Your task to perform on an android device: Search for Italian restaurants on Maps Image 0: 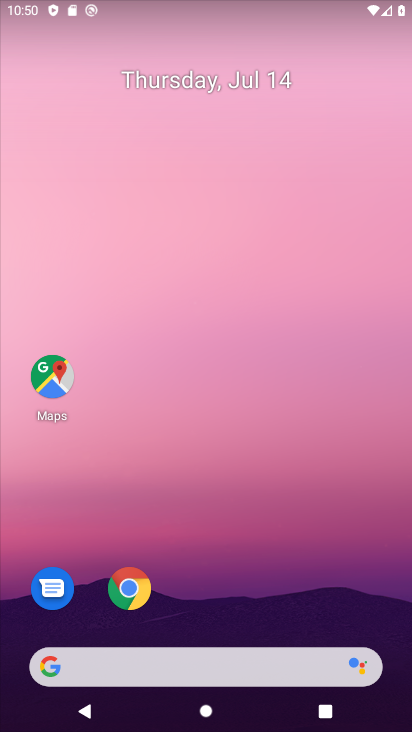
Step 0: click (52, 380)
Your task to perform on an android device: Search for Italian restaurants on Maps Image 1: 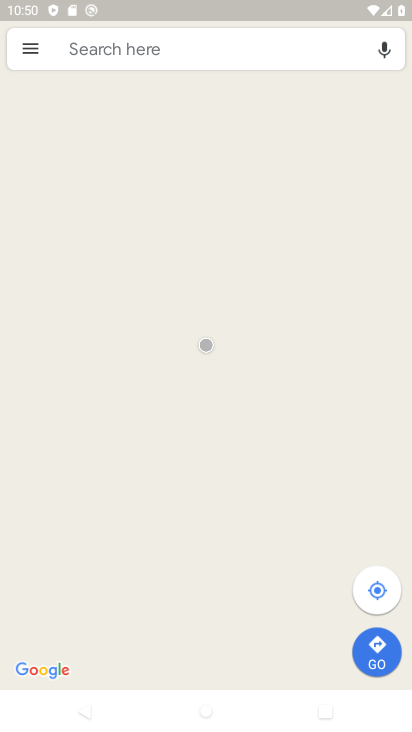
Step 1: click (198, 58)
Your task to perform on an android device: Search for Italian restaurants on Maps Image 2: 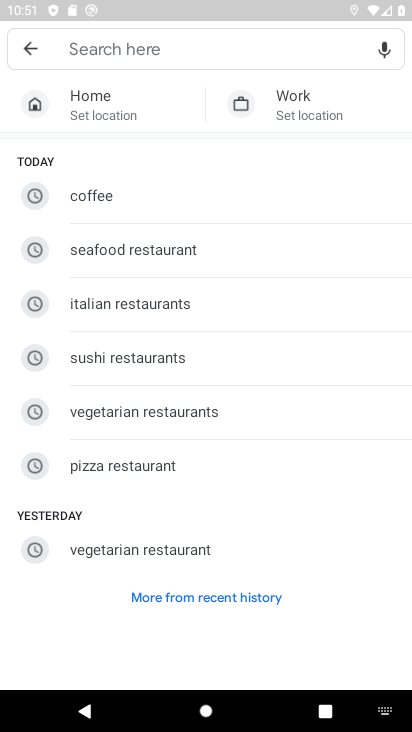
Step 2: type "Italian restaurants"
Your task to perform on an android device: Search for Italian restaurants on Maps Image 3: 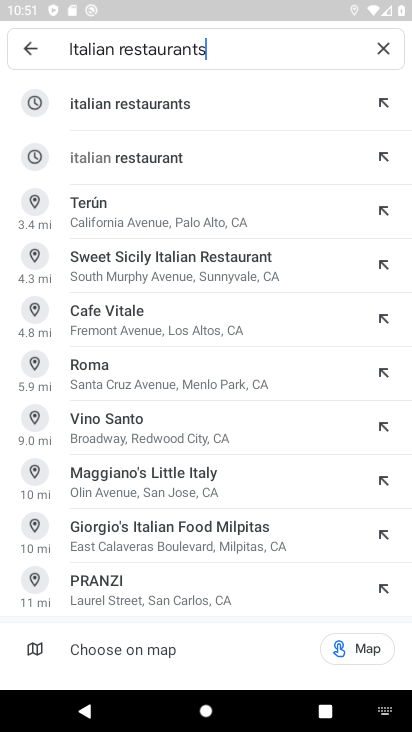
Step 3: click (171, 104)
Your task to perform on an android device: Search for Italian restaurants on Maps Image 4: 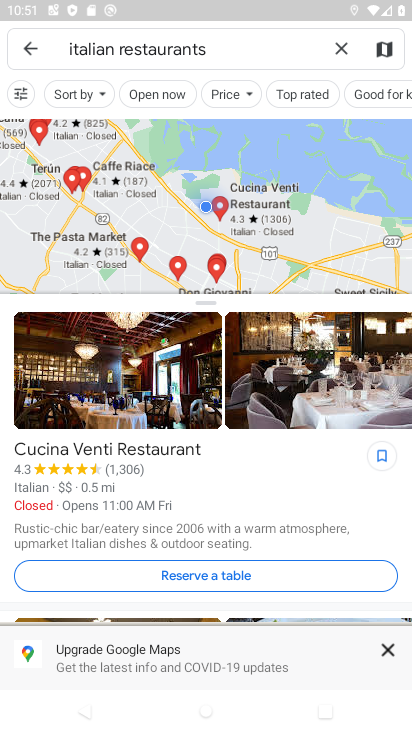
Step 4: task complete